Your task to perform on an android device: toggle notifications settings in the gmail app Image 0: 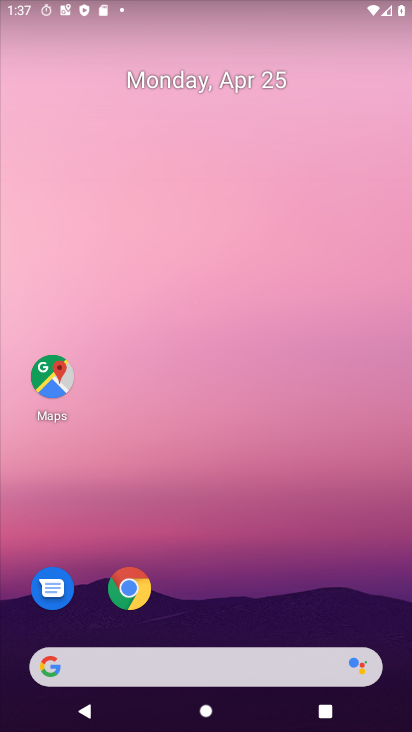
Step 0: drag from (221, 614) to (271, 96)
Your task to perform on an android device: toggle notifications settings in the gmail app Image 1: 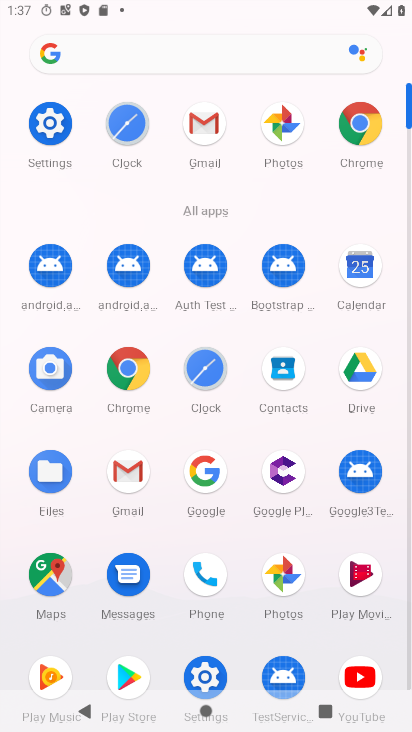
Step 1: click (125, 486)
Your task to perform on an android device: toggle notifications settings in the gmail app Image 2: 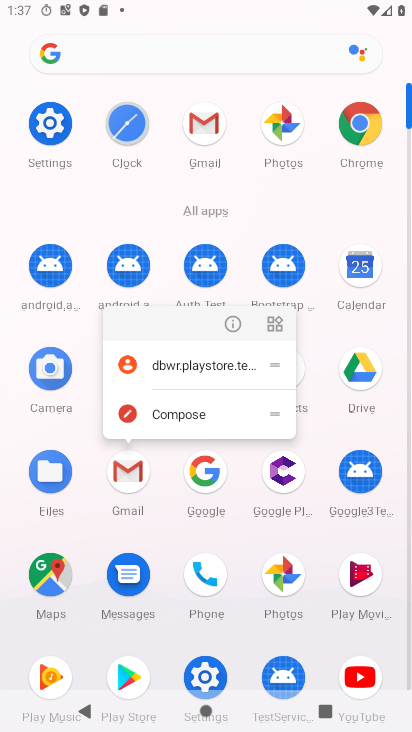
Step 2: click (229, 328)
Your task to perform on an android device: toggle notifications settings in the gmail app Image 3: 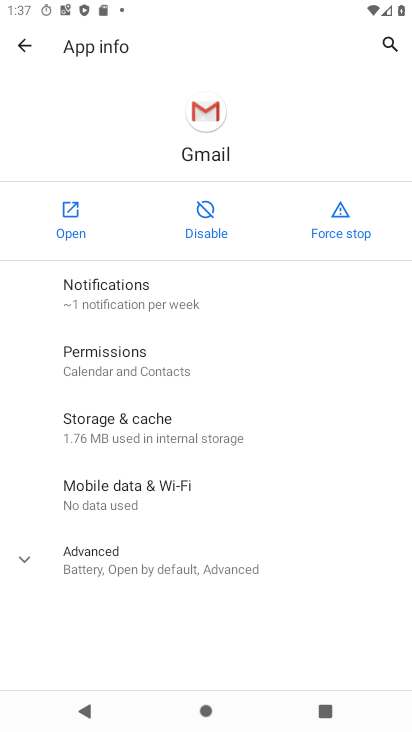
Step 3: click (75, 245)
Your task to perform on an android device: toggle notifications settings in the gmail app Image 4: 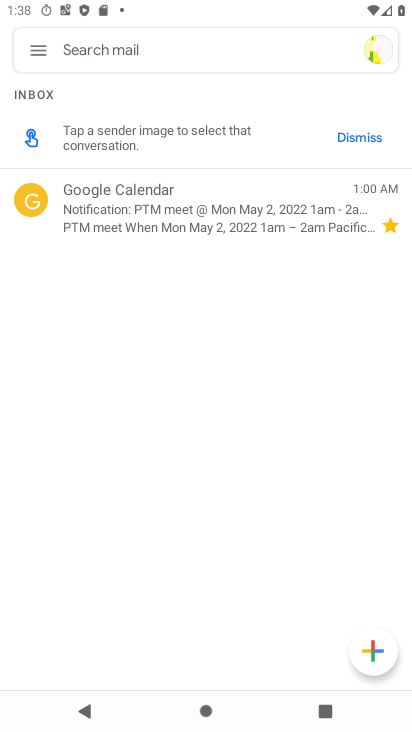
Step 4: click (45, 62)
Your task to perform on an android device: toggle notifications settings in the gmail app Image 5: 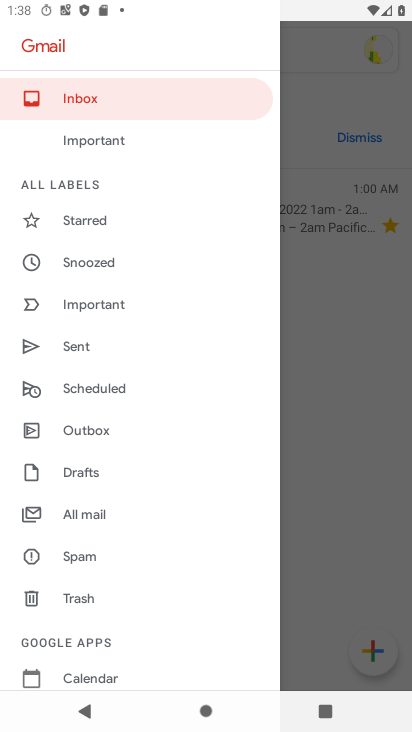
Step 5: drag from (103, 631) to (174, 320)
Your task to perform on an android device: toggle notifications settings in the gmail app Image 6: 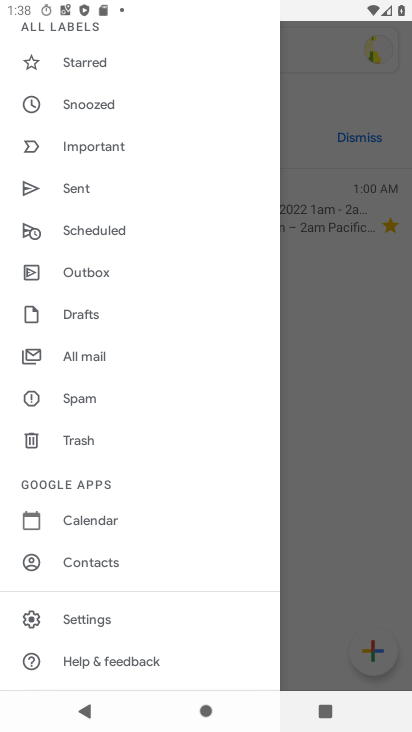
Step 6: click (111, 631)
Your task to perform on an android device: toggle notifications settings in the gmail app Image 7: 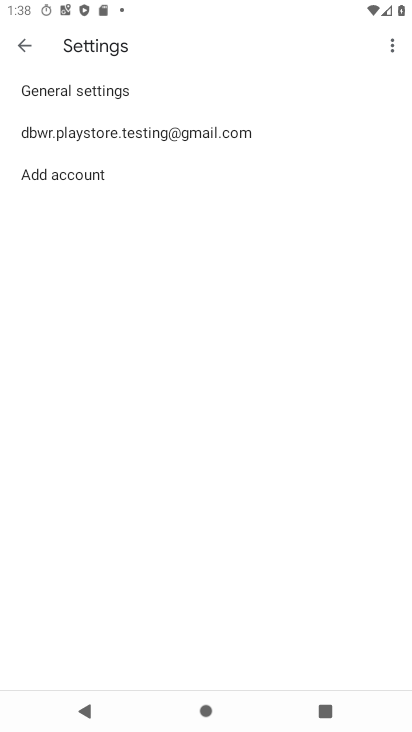
Step 7: click (115, 132)
Your task to perform on an android device: toggle notifications settings in the gmail app Image 8: 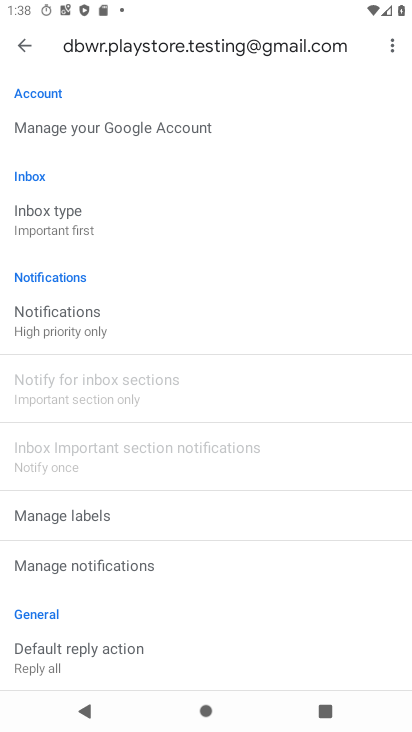
Step 8: click (134, 562)
Your task to perform on an android device: toggle notifications settings in the gmail app Image 9: 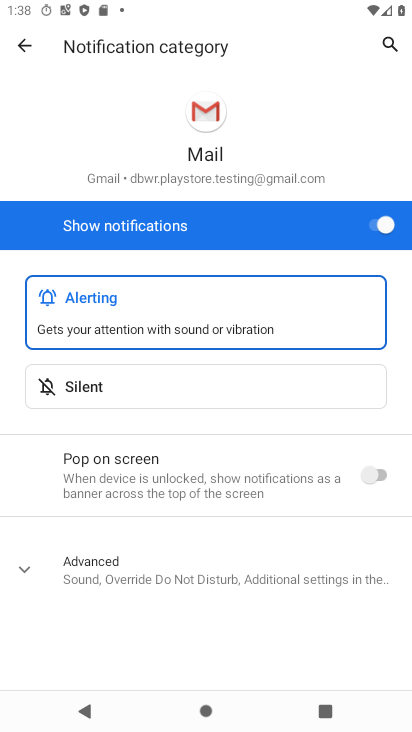
Step 9: click (379, 224)
Your task to perform on an android device: toggle notifications settings in the gmail app Image 10: 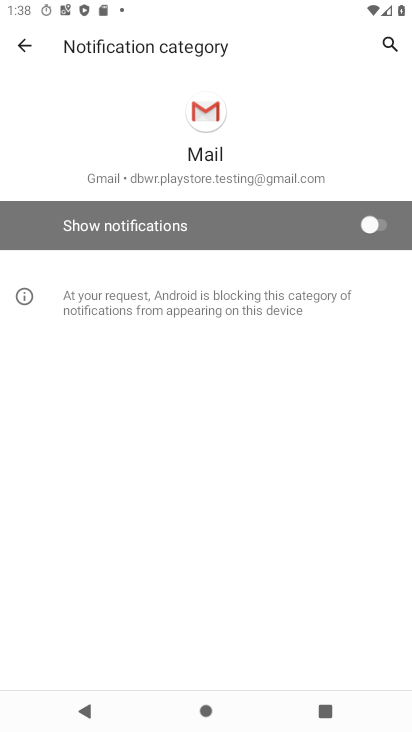
Step 10: task complete